Your task to perform on an android device: Turn off the flashlight Image 0: 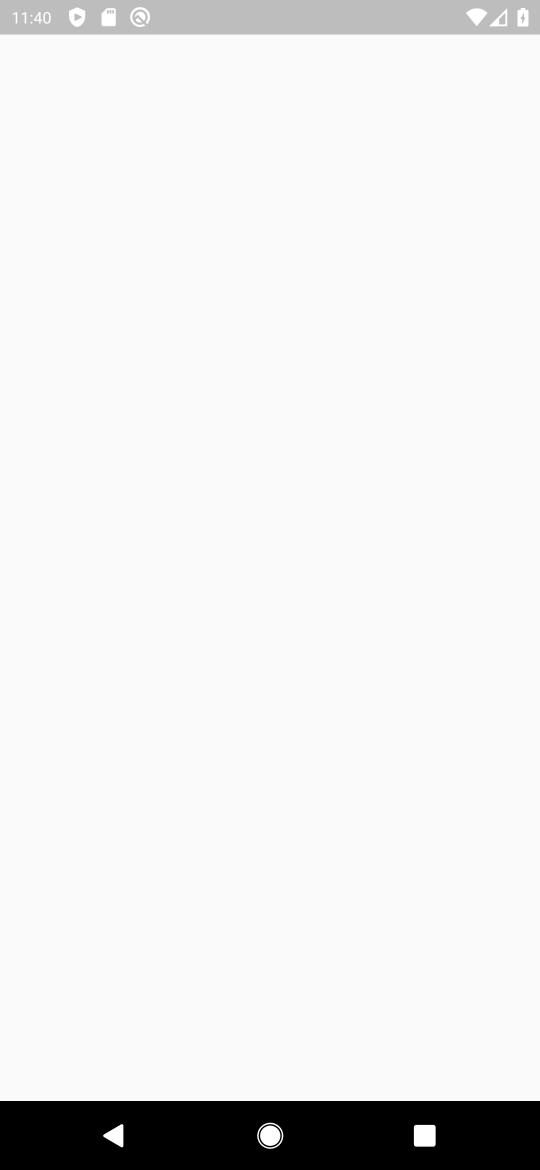
Step 0: press home button
Your task to perform on an android device: Turn off the flashlight Image 1: 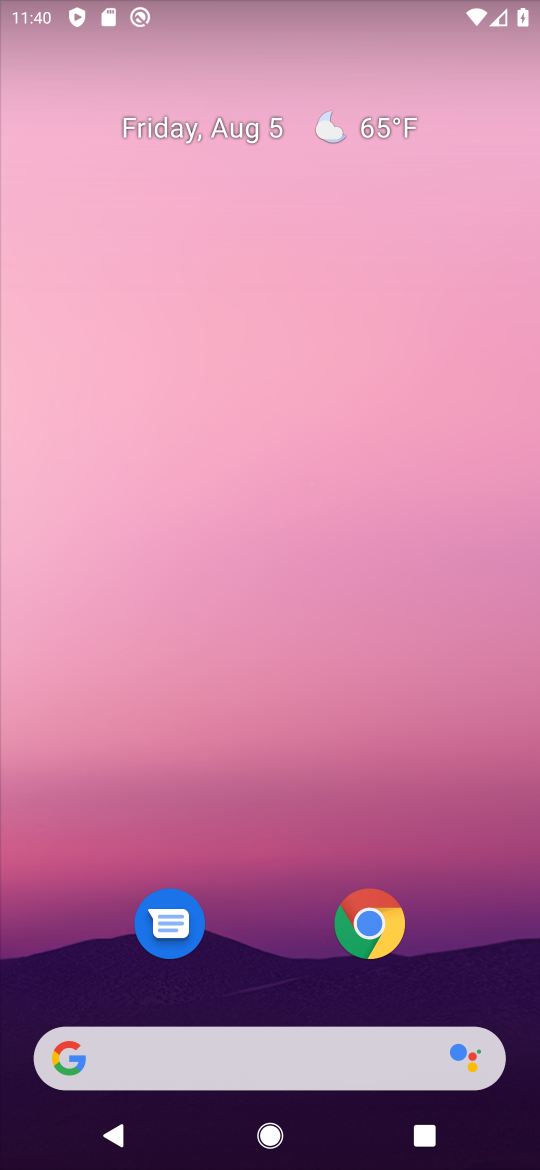
Step 1: drag from (300, 13) to (303, 363)
Your task to perform on an android device: Turn off the flashlight Image 2: 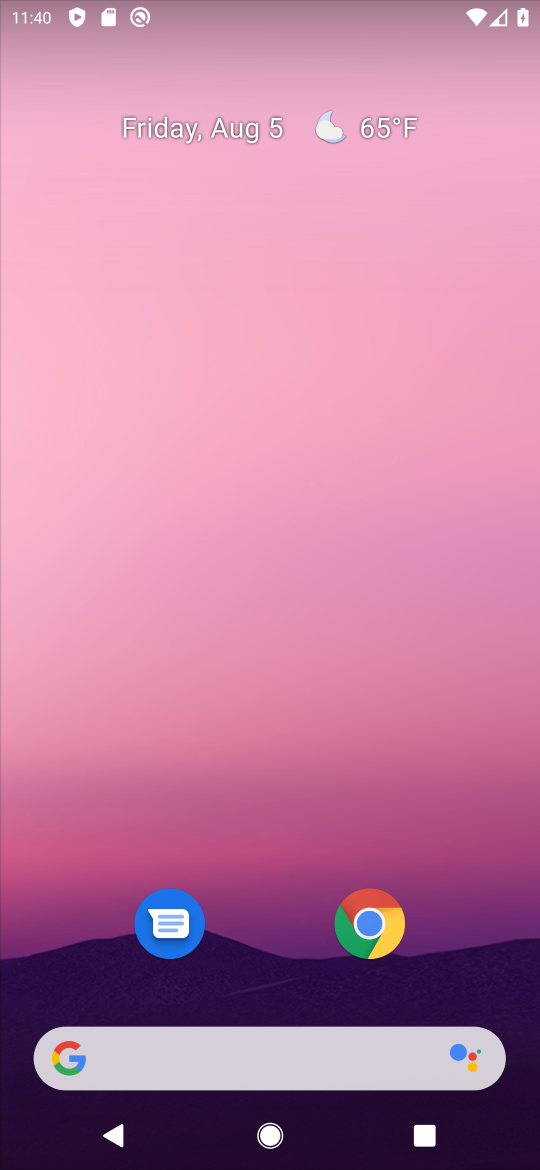
Step 2: drag from (256, 16) to (277, 478)
Your task to perform on an android device: Turn off the flashlight Image 3: 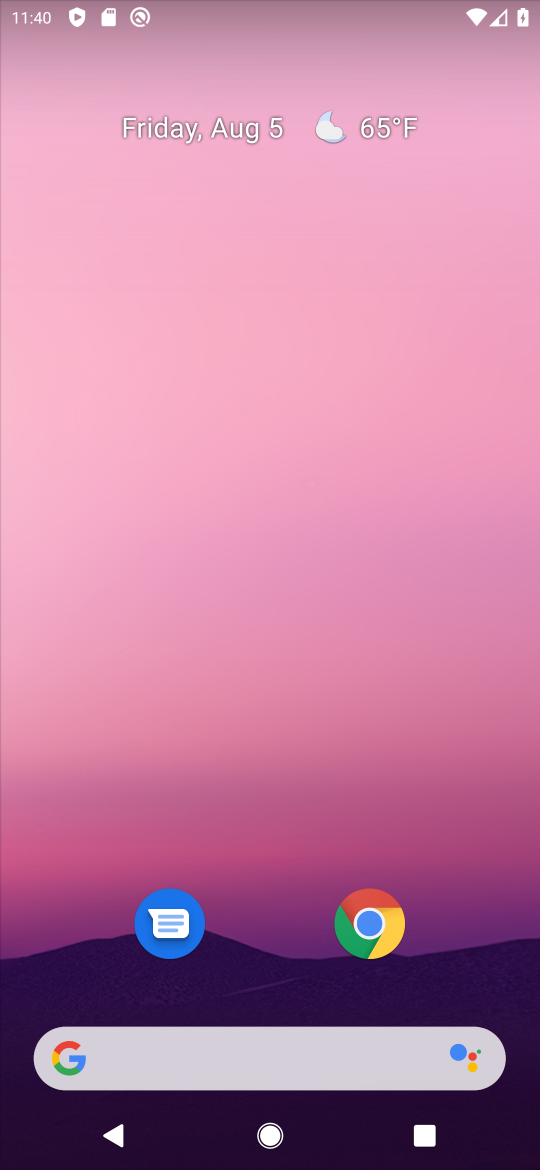
Step 3: drag from (256, 6) to (302, 724)
Your task to perform on an android device: Turn off the flashlight Image 4: 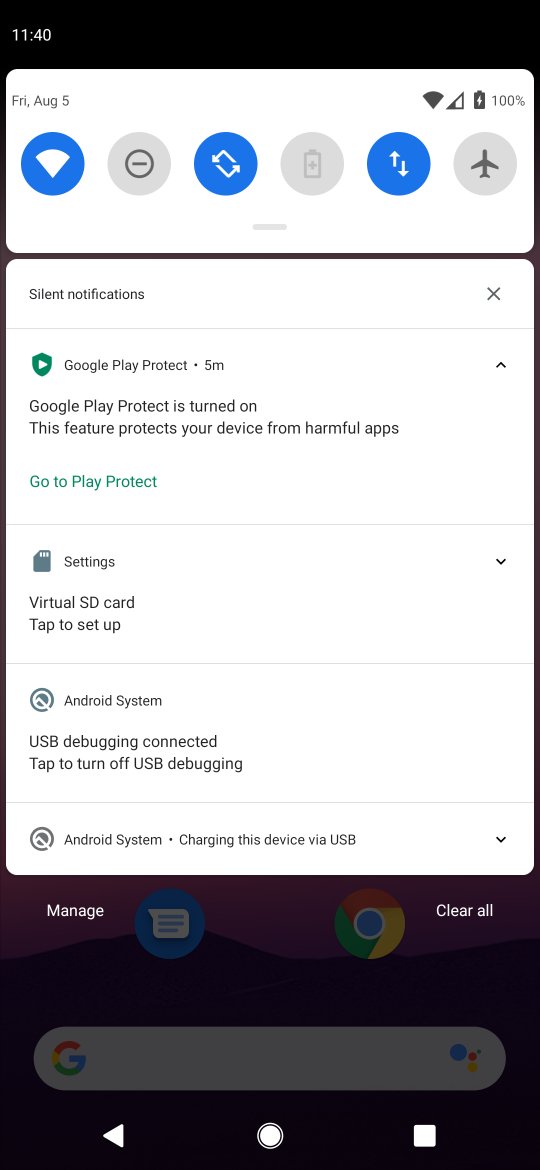
Step 4: drag from (267, 189) to (246, 621)
Your task to perform on an android device: Turn off the flashlight Image 5: 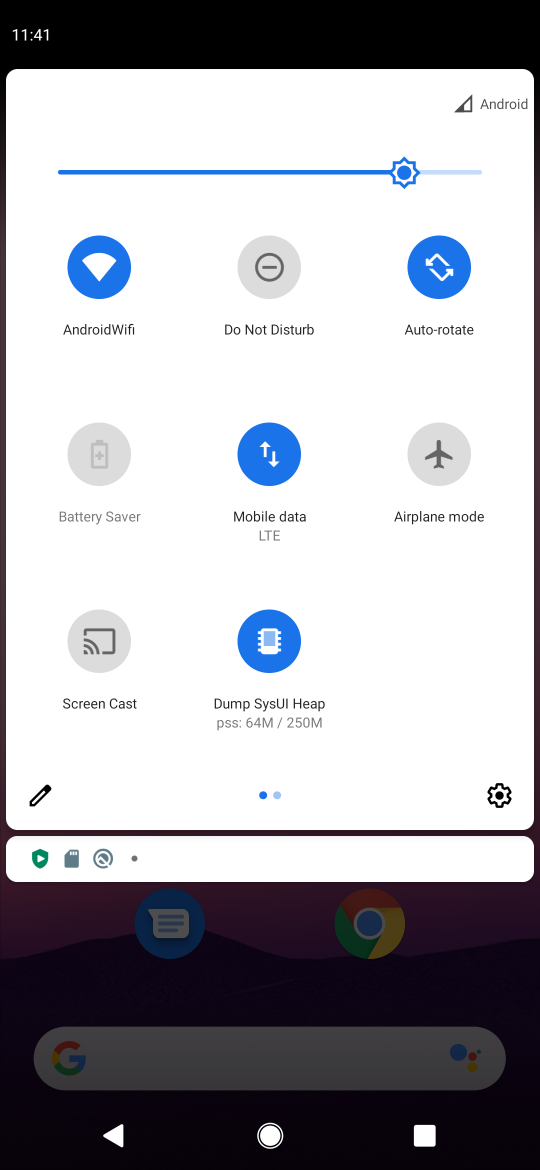
Step 5: click (40, 806)
Your task to perform on an android device: Turn off the flashlight Image 6: 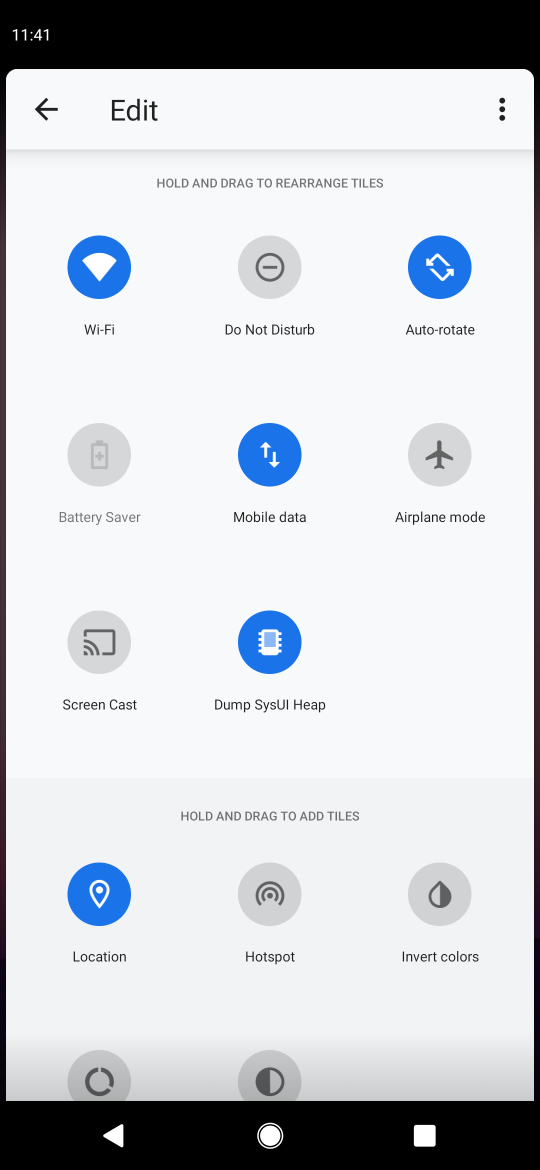
Step 6: click (378, 208)
Your task to perform on an android device: Turn off the flashlight Image 7: 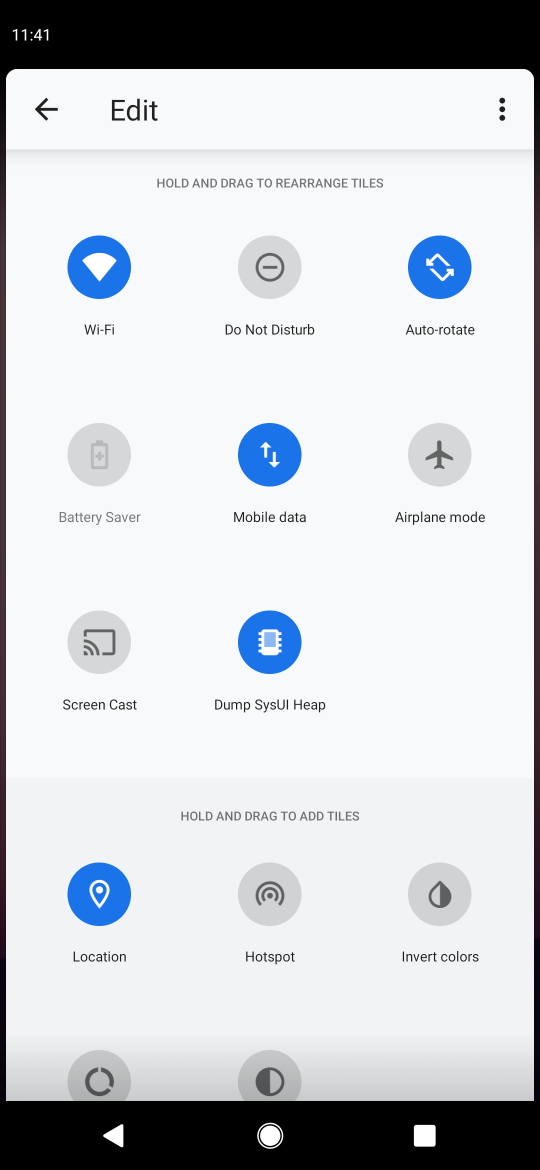
Step 7: task complete